Your task to perform on an android device: open device folders in google photos Image 0: 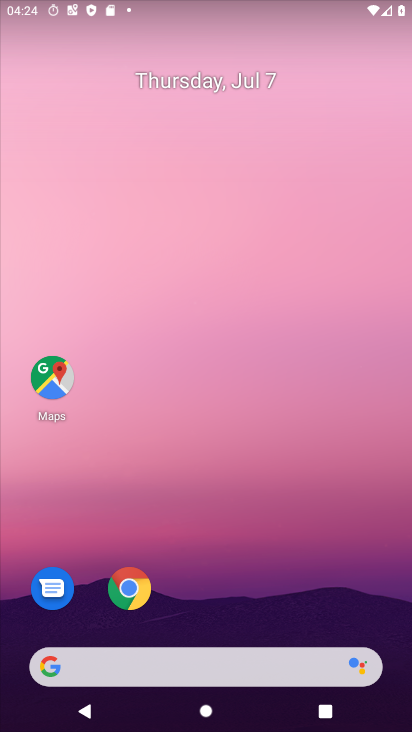
Step 0: drag from (256, 597) to (235, 48)
Your task to perform on an android device: open device folders in google photos Image 1: 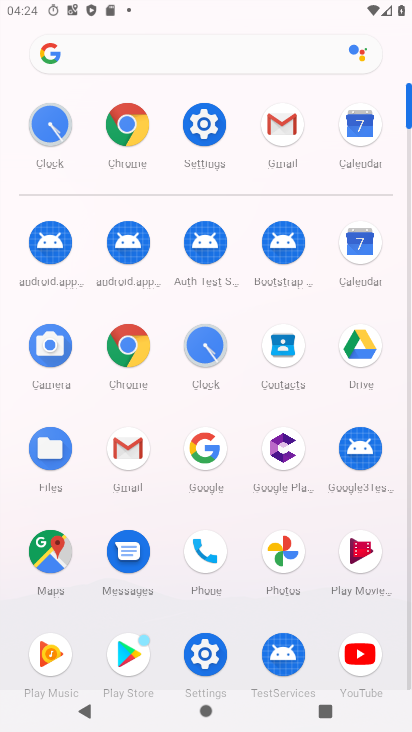
Step 1: click (280, 552)
Your task to perform on an android device: open device folders in google photos Image 2: 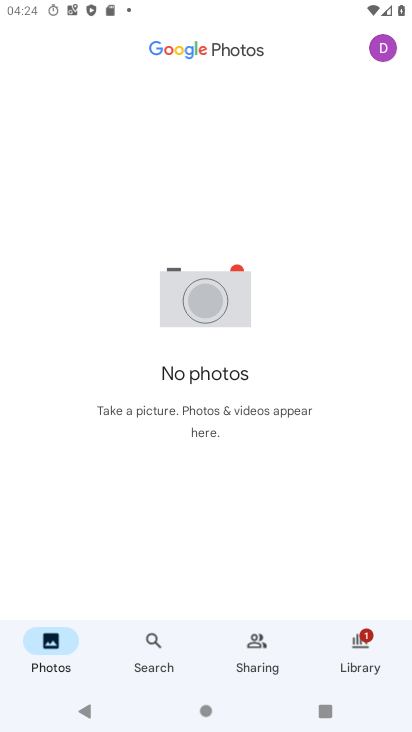
Step 2: click (154, 641)
Your task to perform on an android device: open device folders in google photos Image 3: 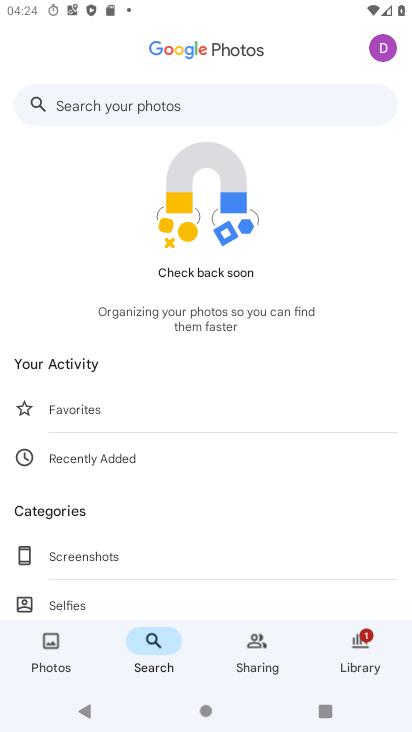
Step 3: click (203, 106)
Your task to perform on an android device: open device folders in google photos Image 4: 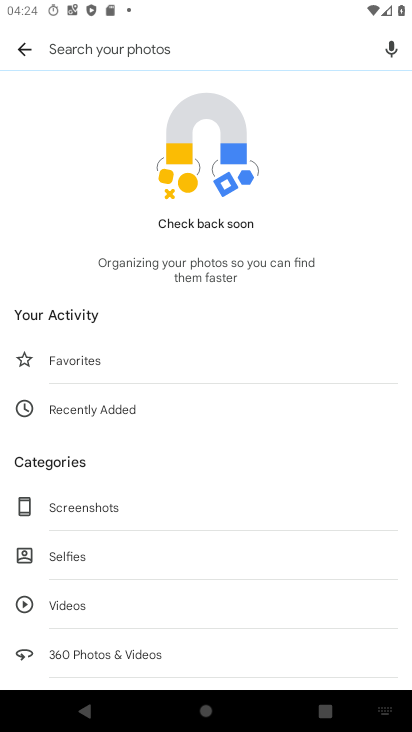
Step 4: type "device folder"
Your task to perform on an android device: open device folders in google photos Image 5: 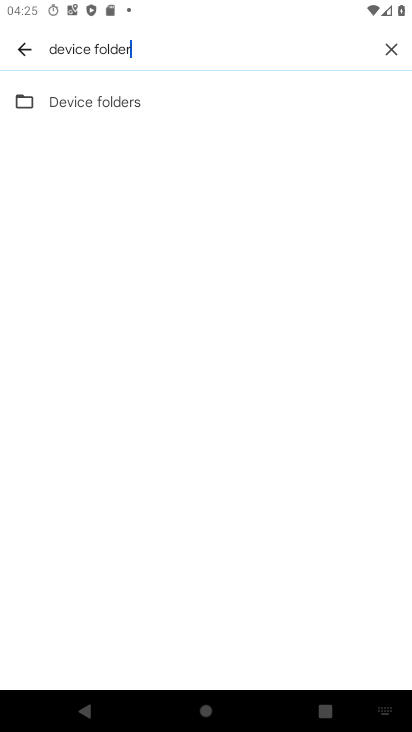
Step 5: click (84, 103)
Your task to perform on an android device: open device folders in google photos Image 6: 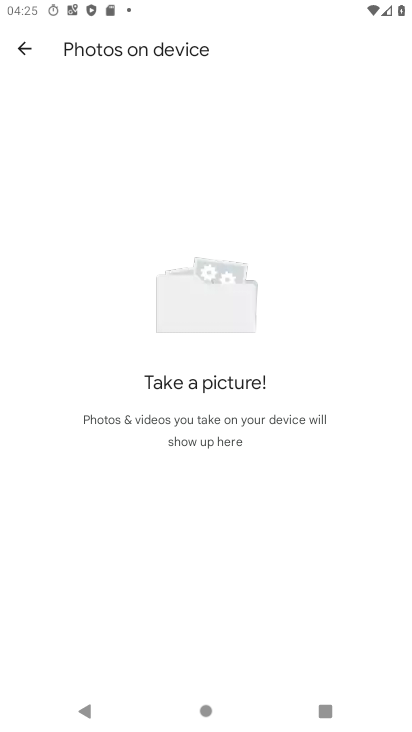
Step 6: task complete